Your task to perform on an android device: turn notification dots on Image 0: 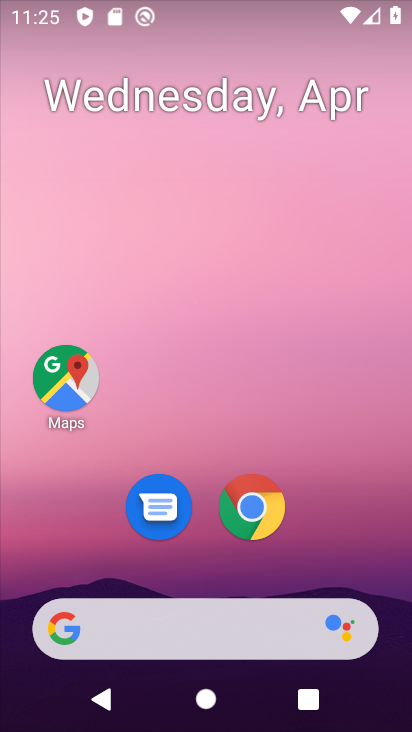
Step 0: drag from (356, 571) to (246, 75)
Your task to perform on an android device: turn notification dots on Image 1: 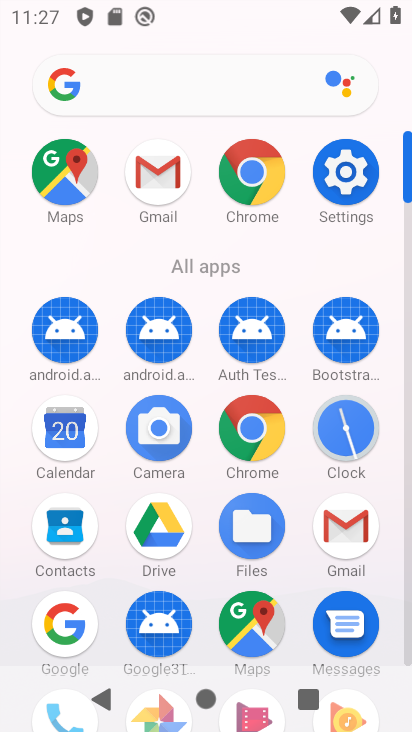
Step 1: click (343, 160)
Your task to perform on an android device: turn notification dots on Image 2: 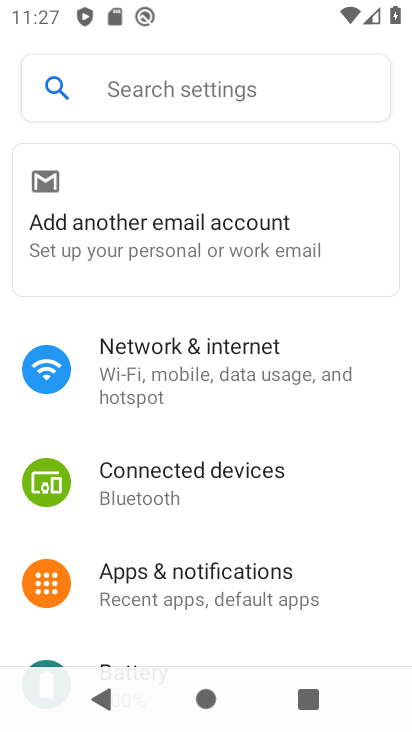
Step 2: click (202, 572)
Your task to perform on an android device: turn notification dots on Image 3: 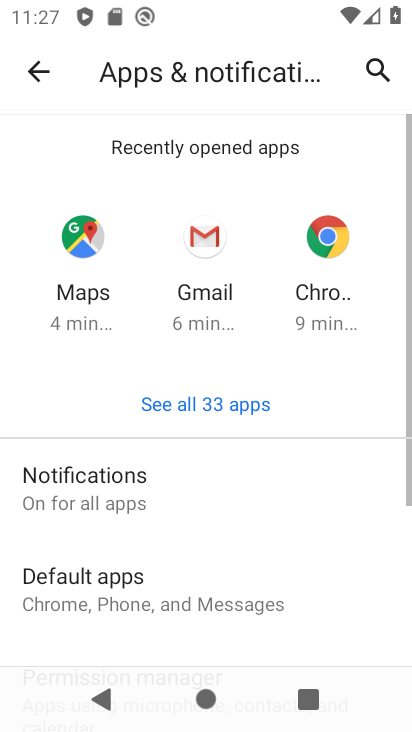
Step 3: click (192, 476)
Your task to perform on an android device: turn notification dots on Image 4: 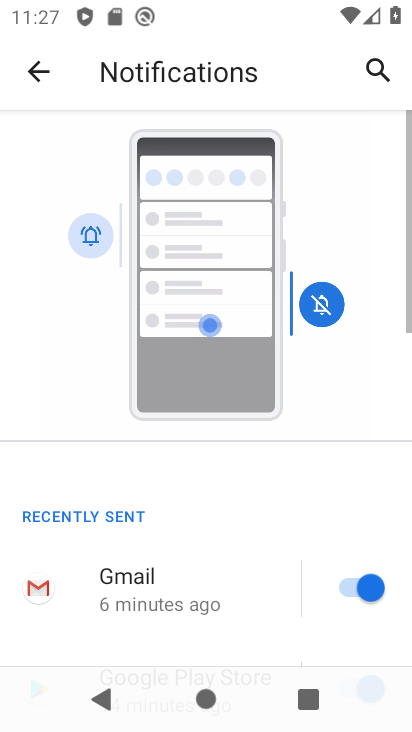
Step 4: drag from (140, 630) to (203, 22)
Your task to perform on an android device: turn notification dots on Image 5: 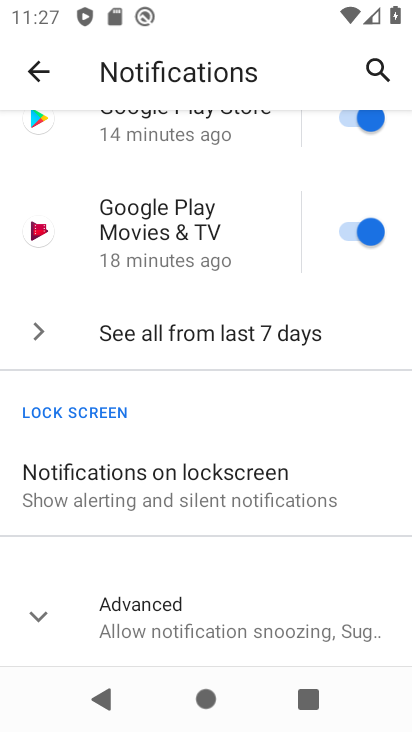
Step 5: click (175, 607)
Your task to perform on an android device: turn notification dots on Image 6: 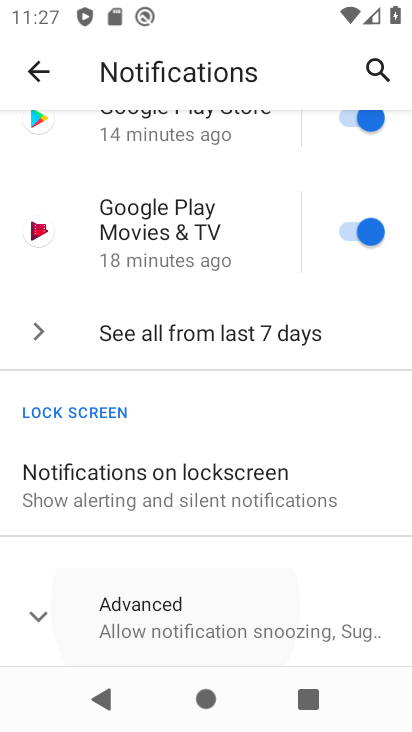
Step 6: task complete